Your task to perform on an android device: allow notifications from all sites in the chrome app Image 0: 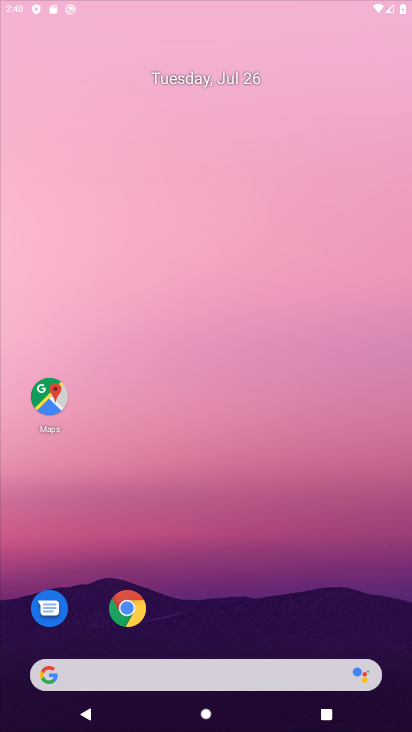
Step 0: drag from (222, 105) to (267, 9)
Your task to perform on an android device: allow notifications from all sites in the chrome app Image 1: 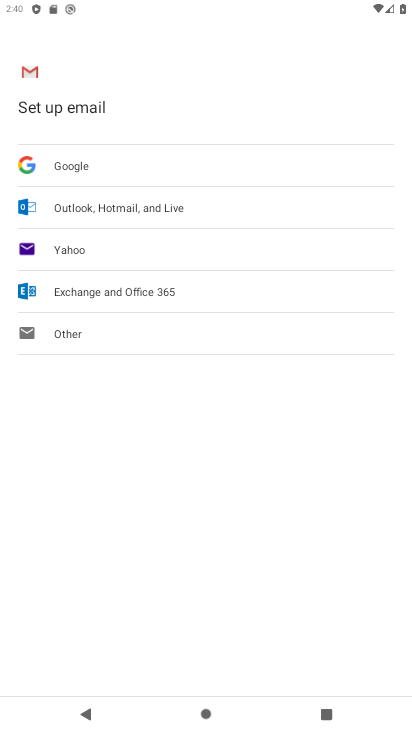
Step 1: press home button
Your task to perform on an android device: allow notifications from all sites in the chrome app Image 2: 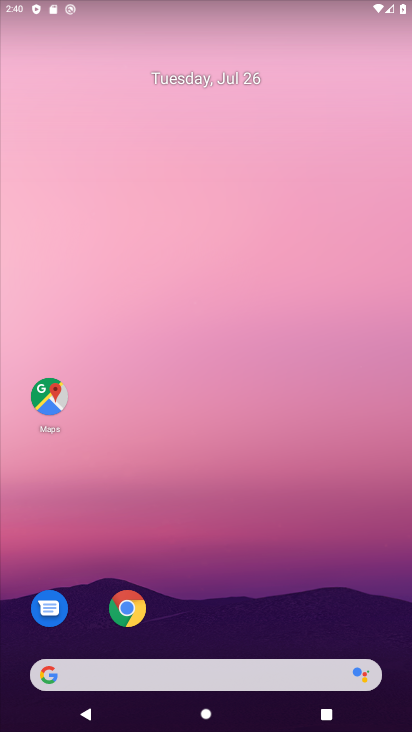
Step 2: drag from (218, 608) to (255, 10)
Your task to perform on an android device: allow notifications from all sites in the chrome app Image 3: 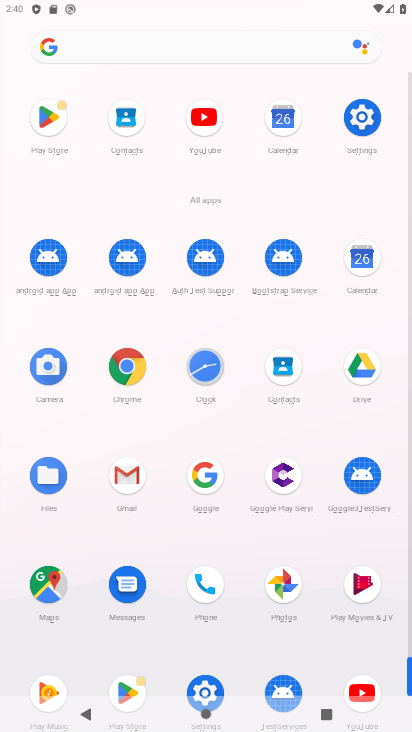
Step 3: drag from (168, 652) to (197, 384)
Your task to perform on an android device: allow notifications from all sites in the chrome app Image 4: 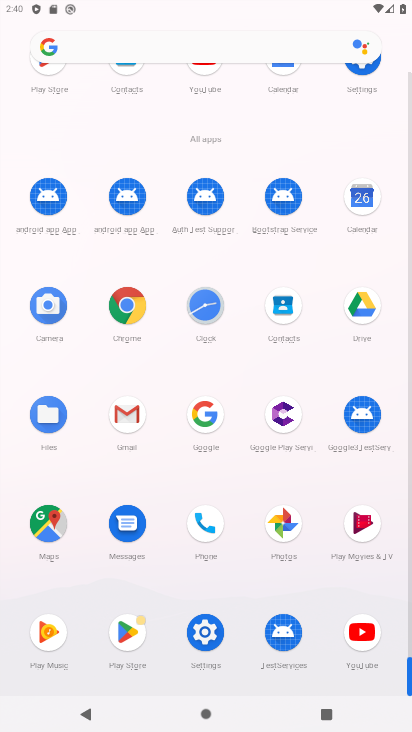
Step 4: click (126, 305)
Your task to perform on an android device: allow notifications from all sites in the chrome app Image 5: 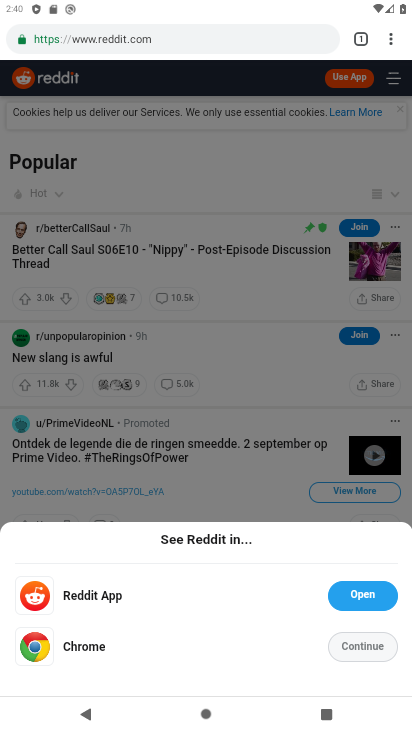
Step 5: click (366, 643)
Your task to perform on an android device: allow notifications from all sites in the chrome app Image 6: 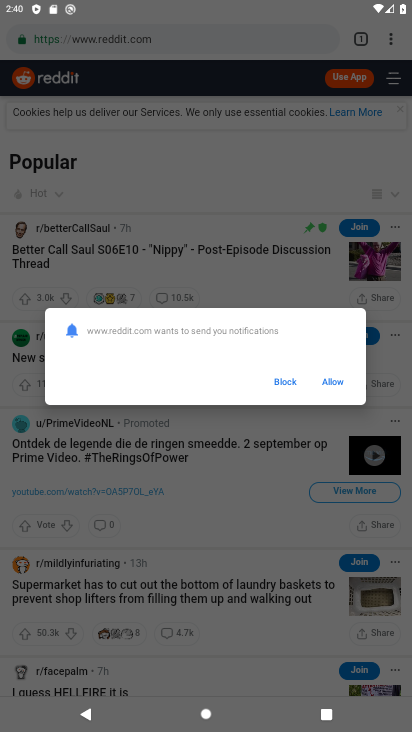
Step 6: click (393, 31)
Your task to perform on an android device: allow notifications from all sites in the chrome app Image 7: 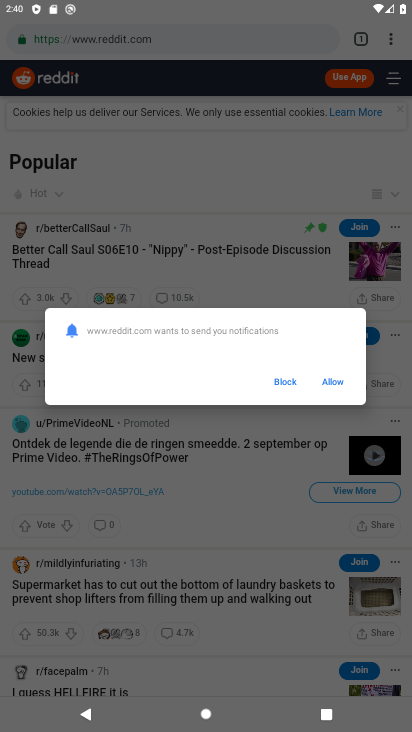
Step 7: click (286, 377)
Your task to perform on an android device: allow notifications from all sites in the chrome app Image 8: 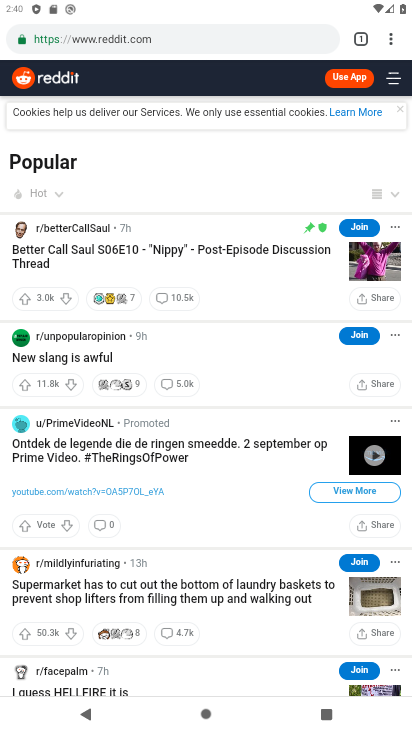
Step 8: click (394, 37)
Your task to perform on an android device: allow notifications from all sites in the chrome app Image 9: 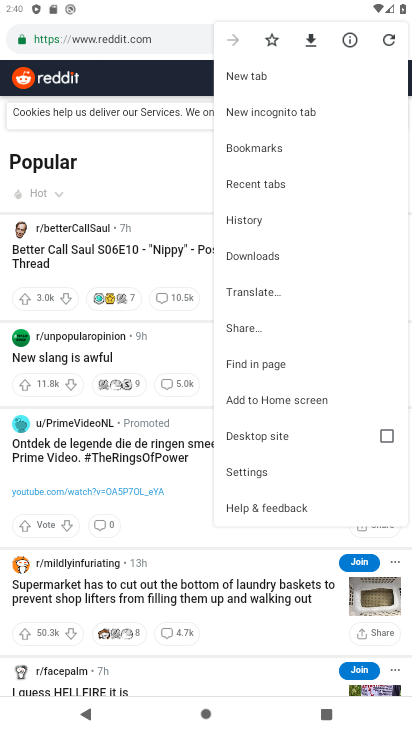
Step 9: click (249, 476)
Your task to perform on an android device: allow notifications from all sites in the chrome app Image 10: 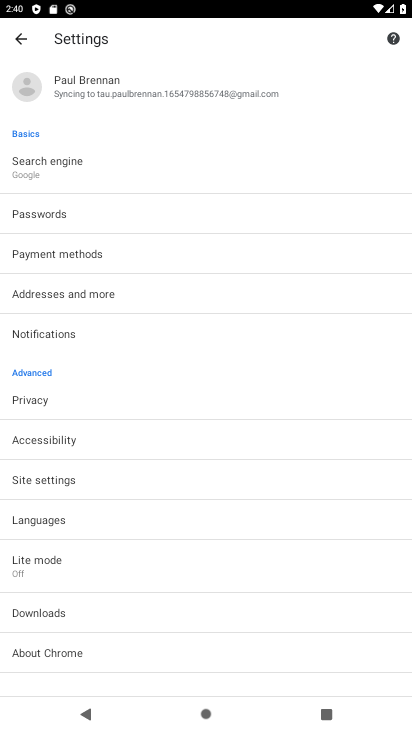
Step 10: click (45, 328)
Your task to perform on an android device: allow notifications from all sites in the chrome app Image 11: 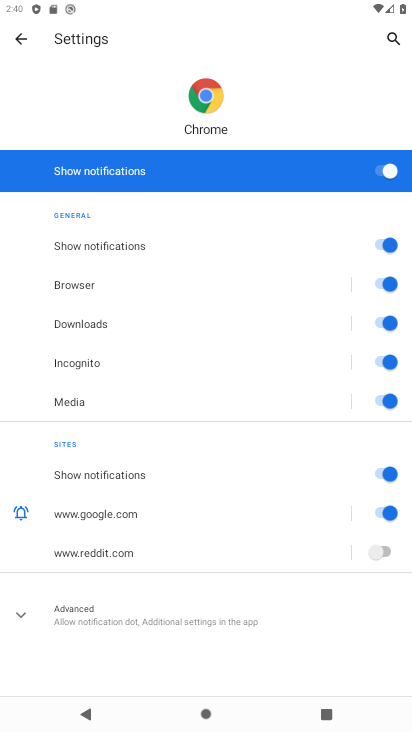
Step 11: task complete